Your task to perform on an android device: What's on my calendar today? Image 0: 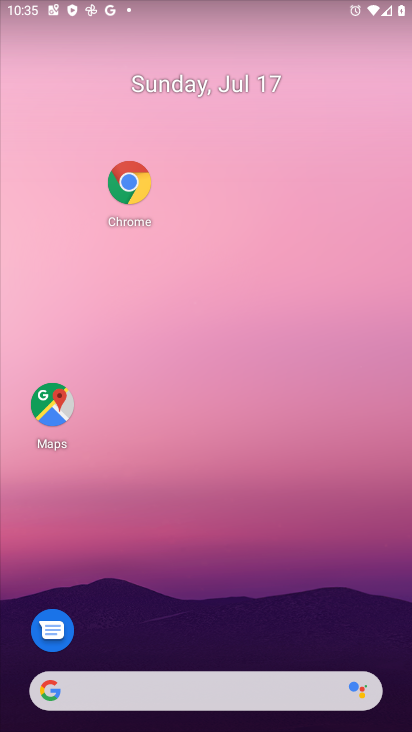
Step 0: drag from (190, 478) to (195, 302)
Your task to perform on an android device: What's on my calendar today? Image 1: 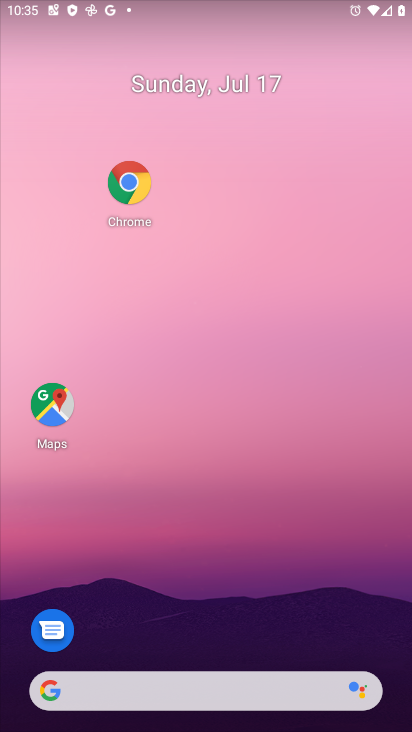
Step 1: drag from (176, 378) to (195, 42)
Your task to perform on an android device: What's on my calendar today? Image 2: 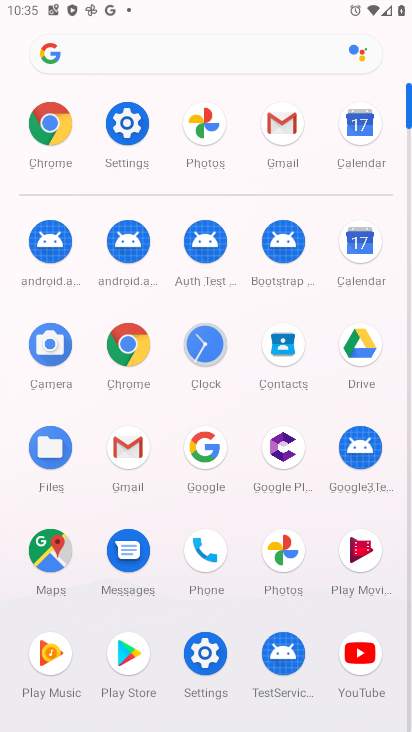
Step 2: click (343, 135)
Your task to perform on an android device: What's on my calendar today? Image 3: 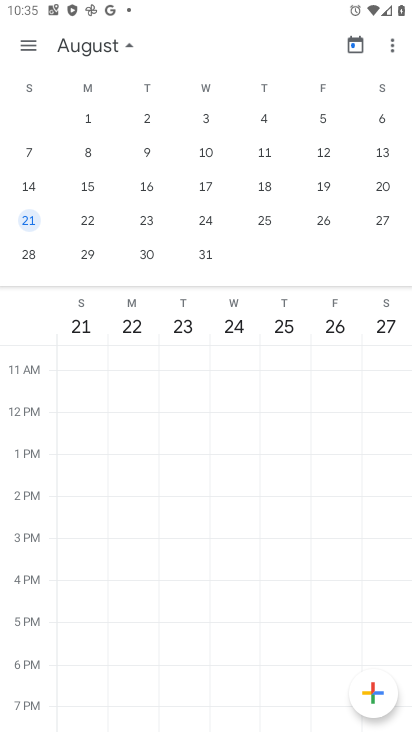
Step 3: click (67, 53)
Your task to perform on an android device: What's on my calendar today? Image 4: 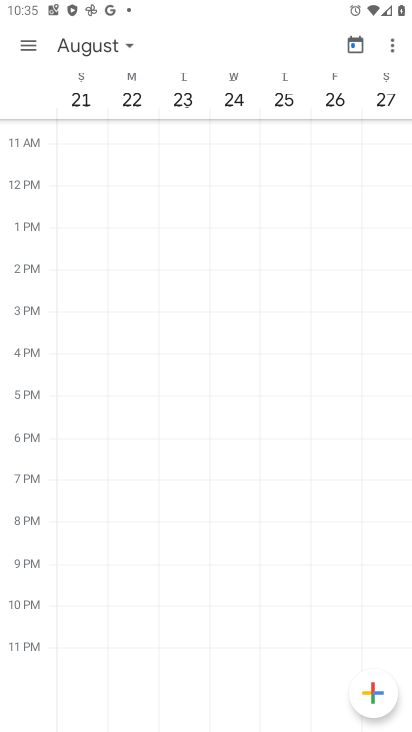
Step 4: click (97, 40)
Your task to perform on an android device: What's on my calendar today? Image 5: 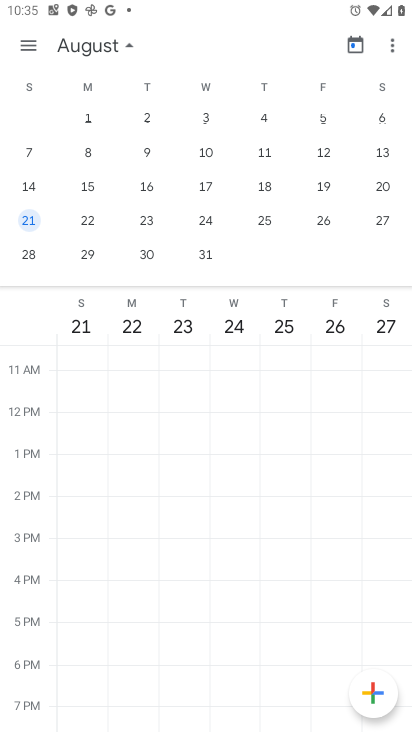
Step 5: drag from (142, 154) to (398, 156)
Your task to perform on an android device: What's on my calendar today? Image 6: 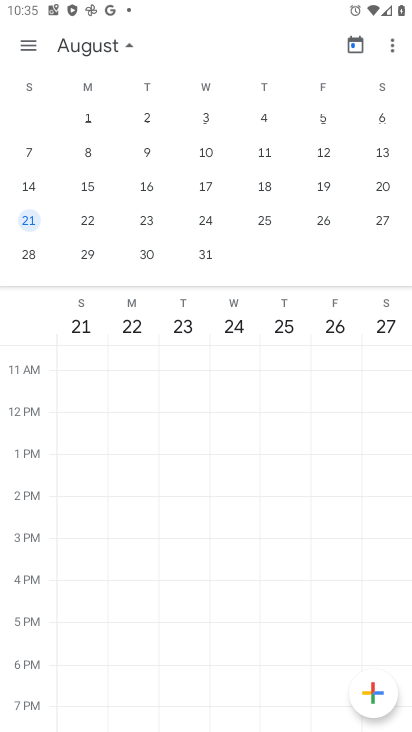
Step 6: drag from (249, 204) to (376, 195)
Your task to perform on an android device: What's on my calendar today? Image 7: 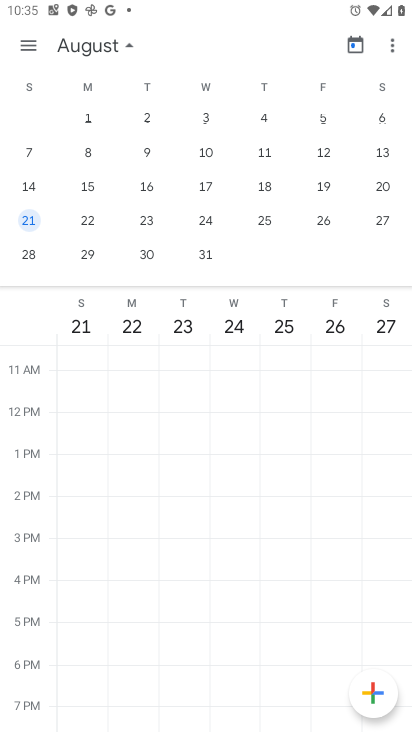
Step 7: drag from (42, 141) to (409, 155)
Your task to perform on an android device: What's on my calendar today? Image 8: 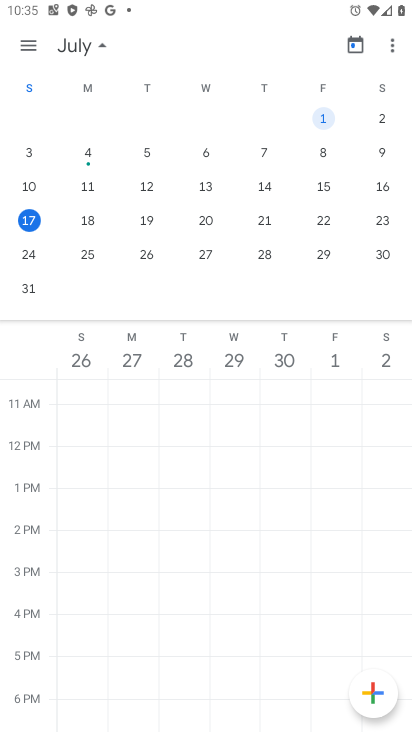
Step 8: click (23, 229)
Your task to perform on an android device: What's on my calendar today? Image 9: 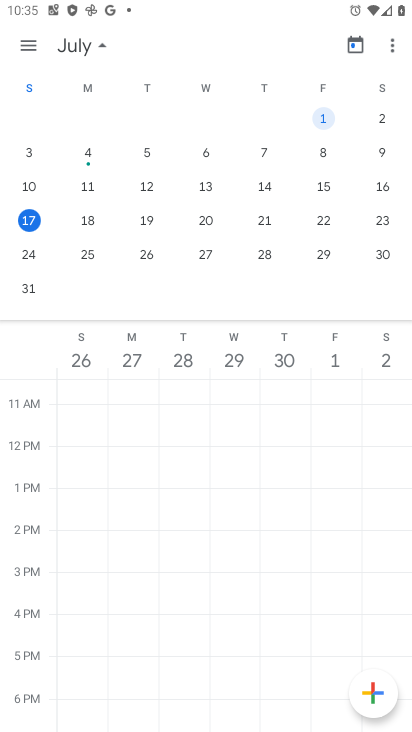
Step 9: click (23, 229)
Your task to perform on an android device: What's on my calendar today? Image 10: 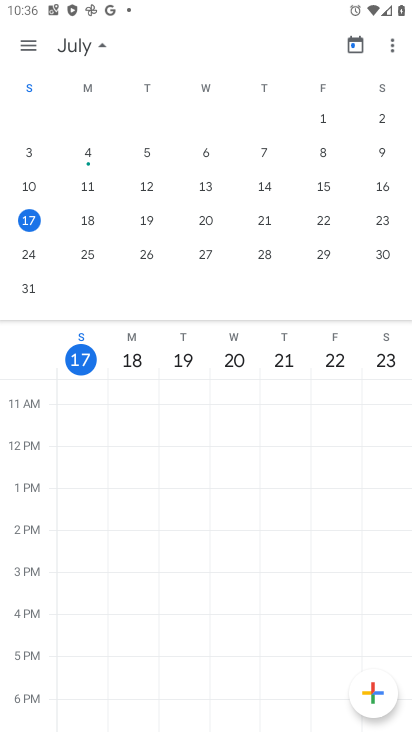
Step 10: task complete